Your task to perform on an android device: turn off priority inbox in the gmail app Image 0: 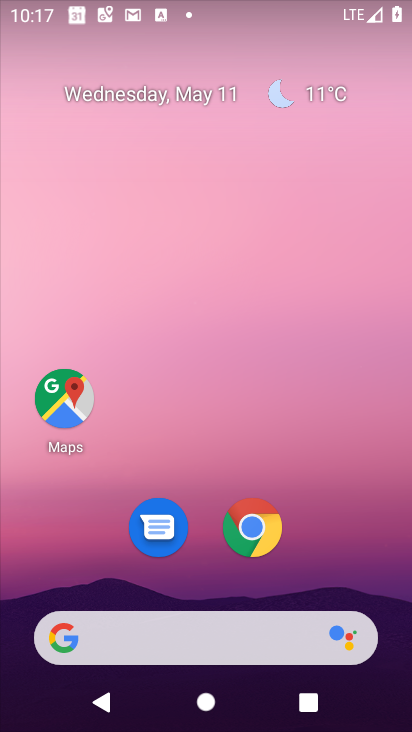
Step 0: drag from (323, 550) to (299, 106)
Your task to perform on an android device: turn off priority inbox in the gmail app Image 1: 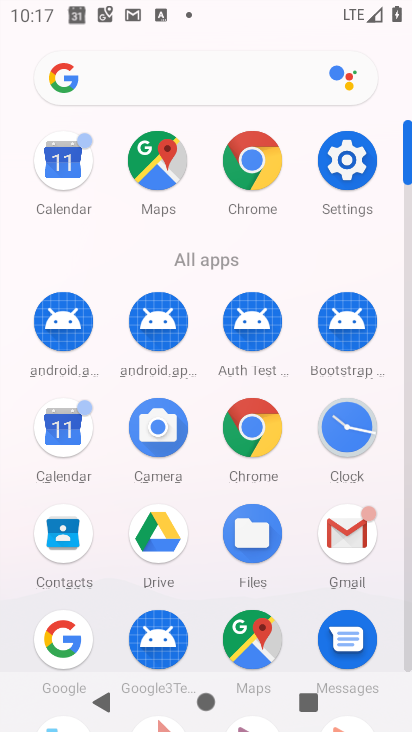
Step 1: click (372, 530)
Your task to perform on an android device: turn off priority inbox in the gmail app Image 2: 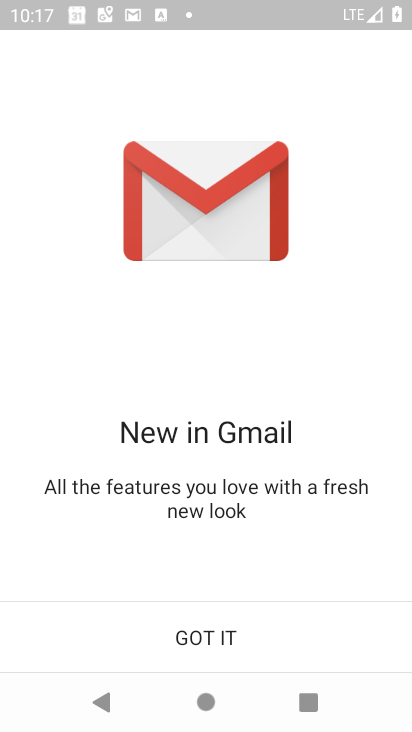
Step 2: click (208, 638)
Your task to perform on an android device: turn off priority inbox in the gmail app Image 3: 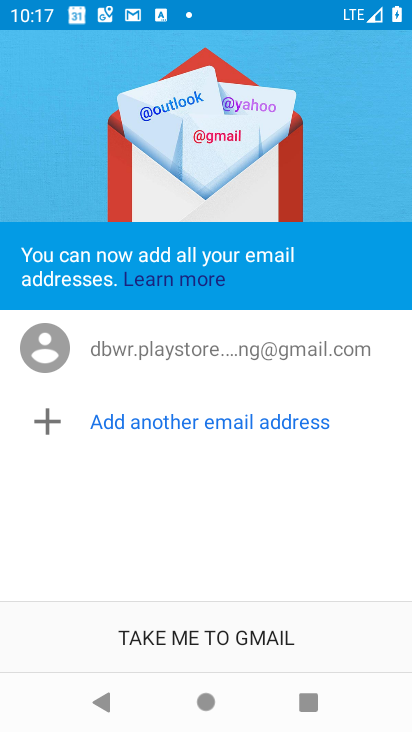
Step 3: click (208, 638)
Your task to perform on an android device: turn off priority inbox in the gmail app Image 4: 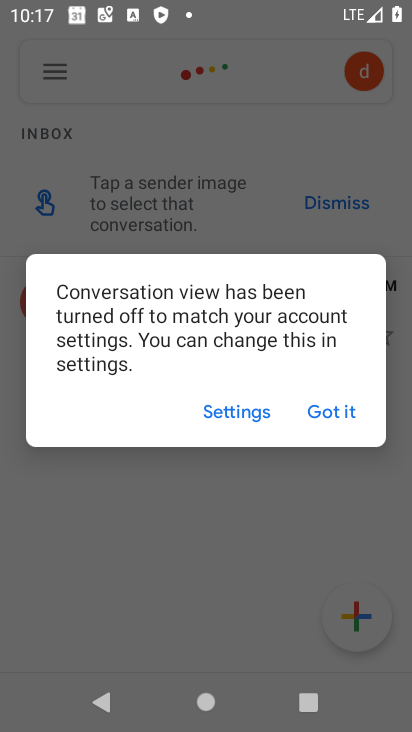
Step 4: click (331, 409)
Your task to perform on an android device: turn off priority inbox in the gmail app Image 5: 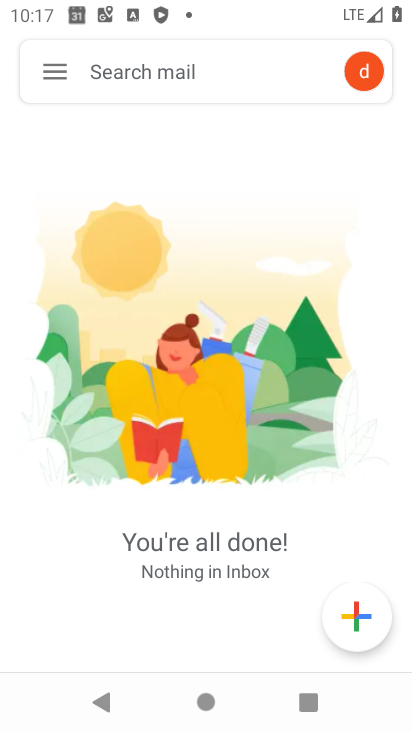
Step 5: click (45, 74)
Your task to perform on an android device: turn off priority inbox in the gmail app Image 6: 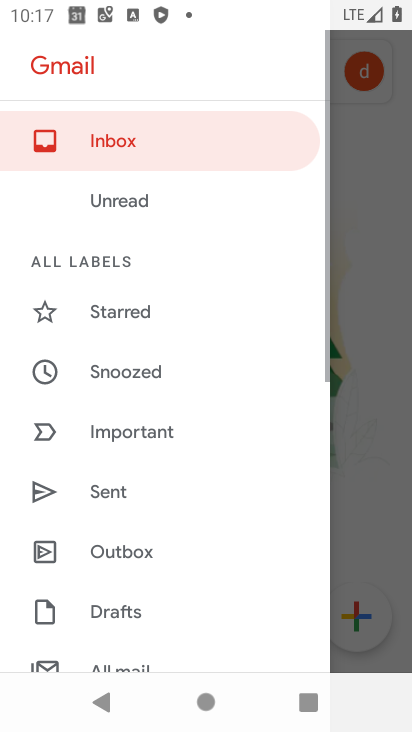
Step 6: drag from (143, 612) to (215, 87)
Your task to perform on an android device: turn off priority inbox in the gmail app Image 7: 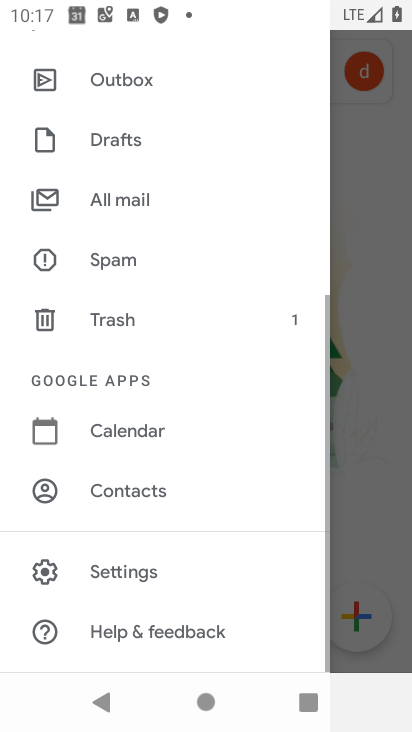
Step 7: drag from (141, 635) to (180, 119)
Your task to perform on an android device: turn off priority inbox in the gmail app Image 8: 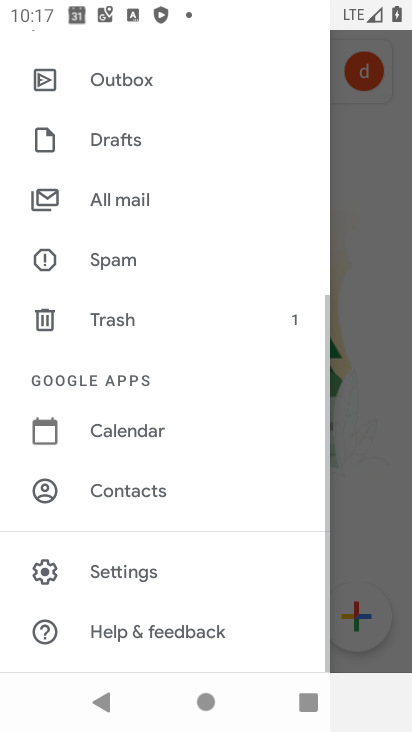
Step 8: click (109, 586)
Your task to perform on an android device: turn off priority inbox in the gmail app Image 9: 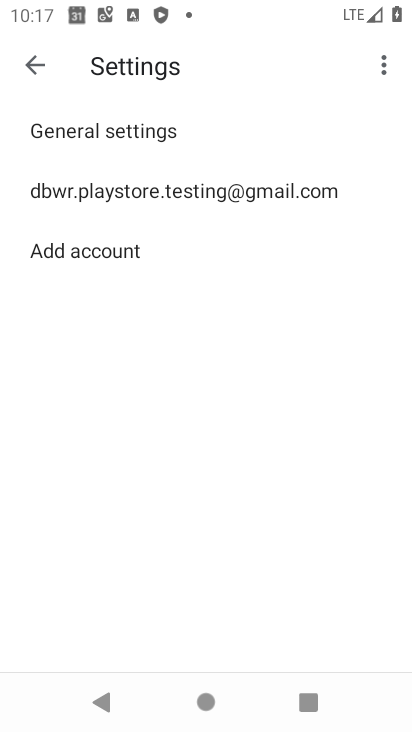
Step 9: click (105, 176)
Your task to perform on an android device: turn off priority inbox in the gmail app Image 10: 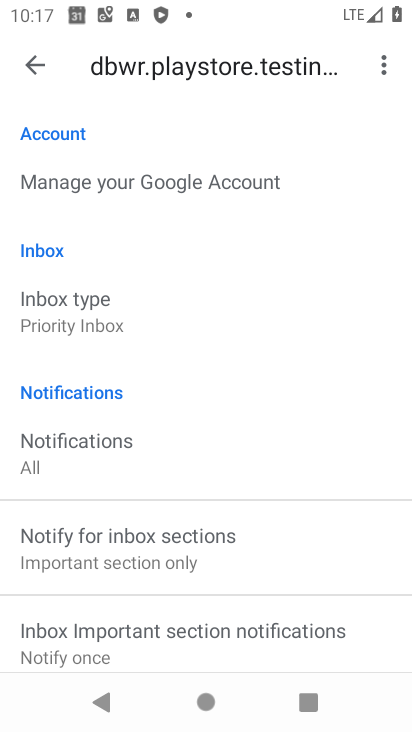
Step 10: click (77, 299)
Your task to perform on an android device: turn off priority inbox in the gmail app Image 11: 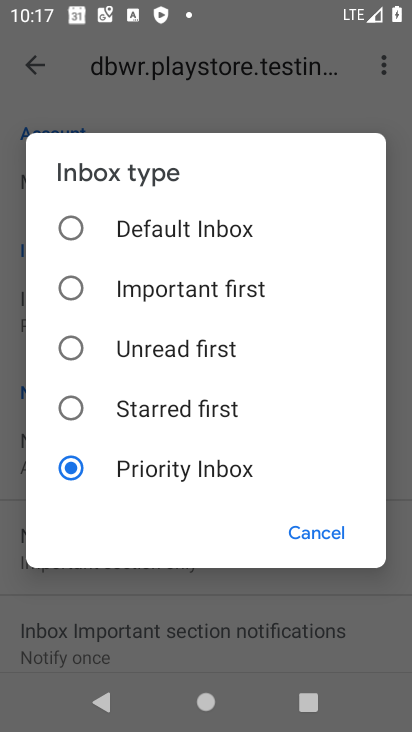
Step 11: click (69, 234)
Your task to perform on an android device: turn off priority inbox in the gmail app Image 12: 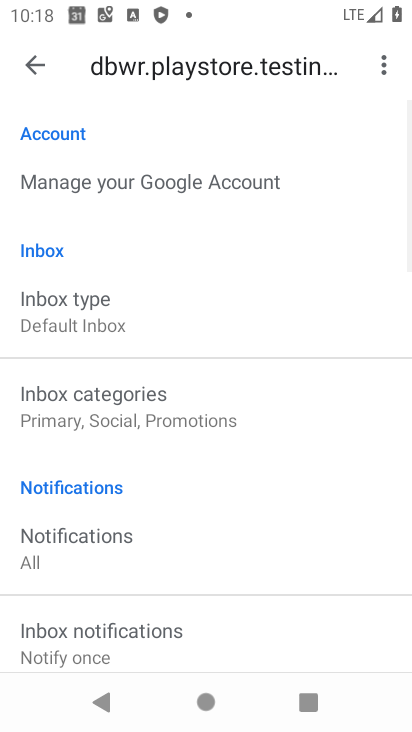
Step 12: task complete